Your task to perform on an android device: toggle javascript in the chrome app Image 0: 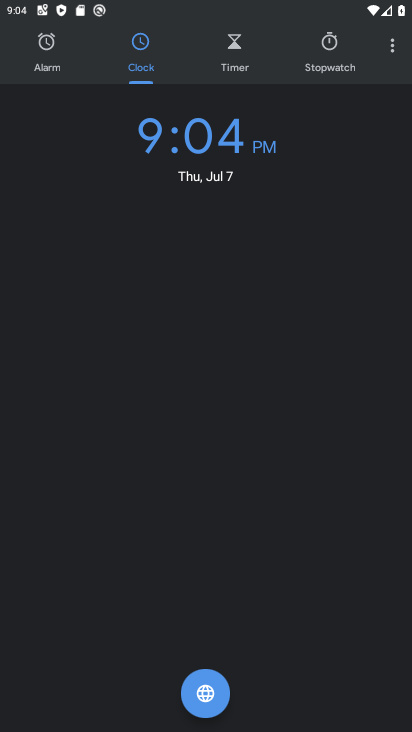
Step 0: drag from (279, 514) to (331, 168)
Your task to perform on an android device: toggle javascript in the chrome app Image 1: 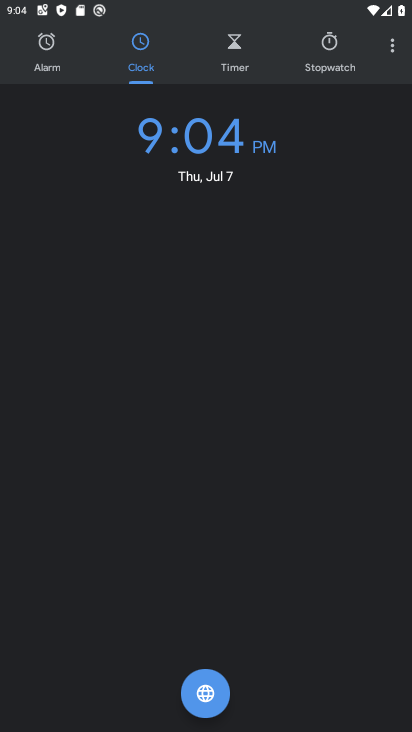
Step 1: press home button
Your task to perform on an android device: toggle javascript in the chrome app Image 2: 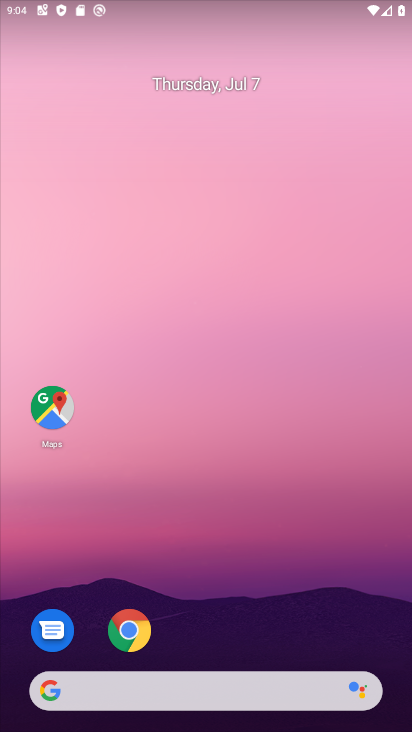
Step 2: drag from (180, 659) to (279, 131)
Your task to perform on an android device: toggle javascript in the chrome app Image 3: 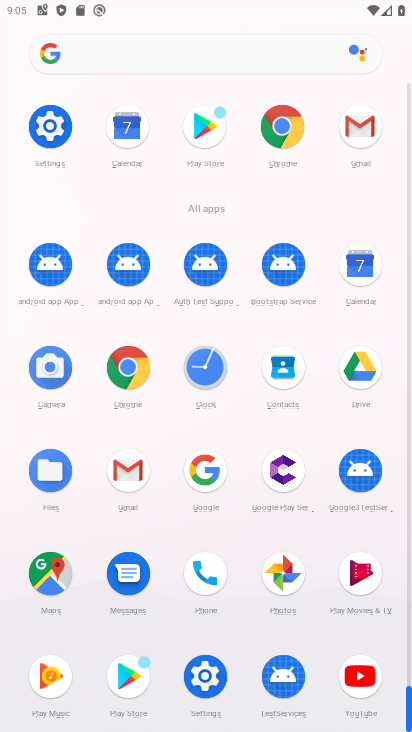
Step 3: click (133, 364)
Your task to perform on an android device: toggle javascript in the chrome app Image 4: 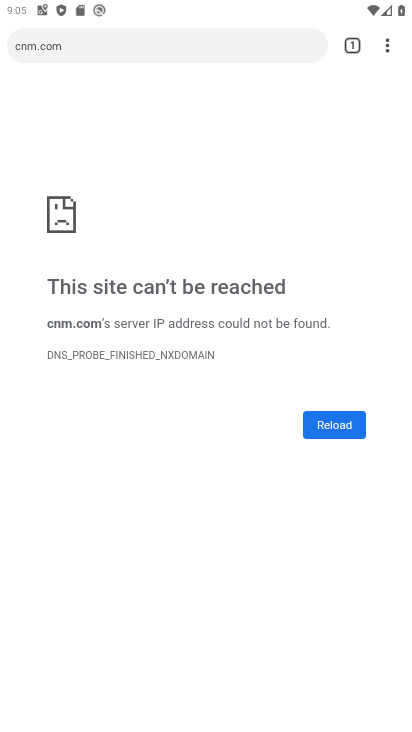
Step 4: click (255, 183)
Your task to perform on an android device: toggle javascript in the chrome app Image 5: 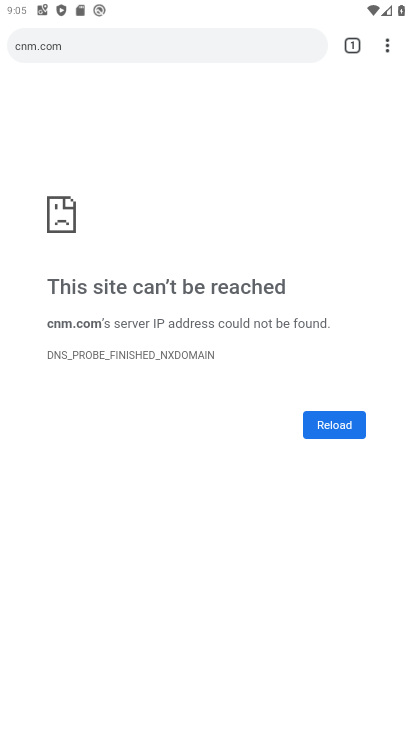
Step 5: click (387, 43)
Your task to perform on an android device: toggle javascript in the chrome app Image 6: 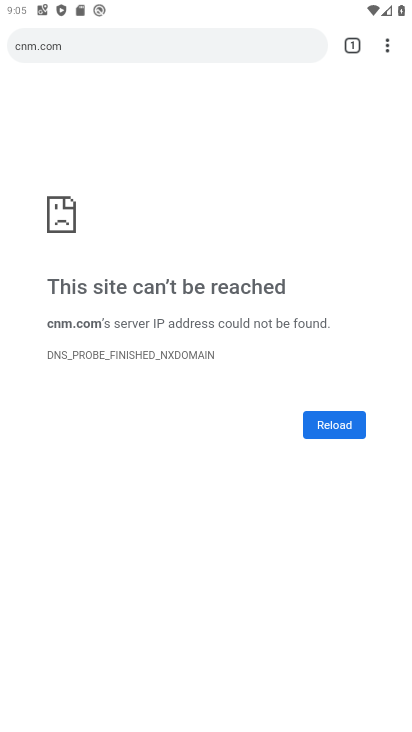
Step 6: drag from (389, 45) to (275, 509)
Your task to perform on an android device: toggle javascript in the chrome app Image 7: 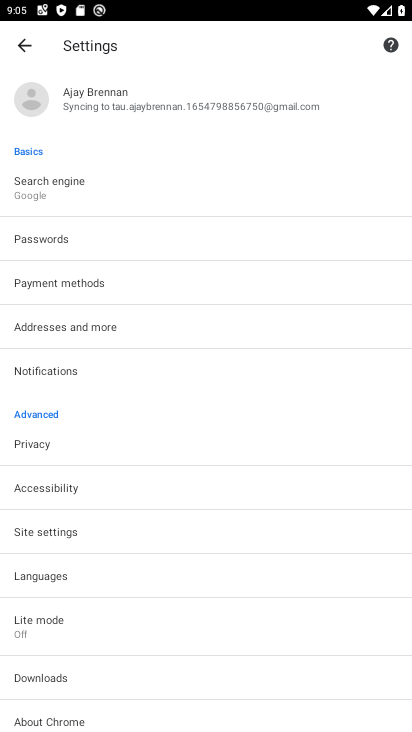
Step 7: click (89, 536)
Your task to perform on an android device: toggle javascript in the chrome app Image 8: 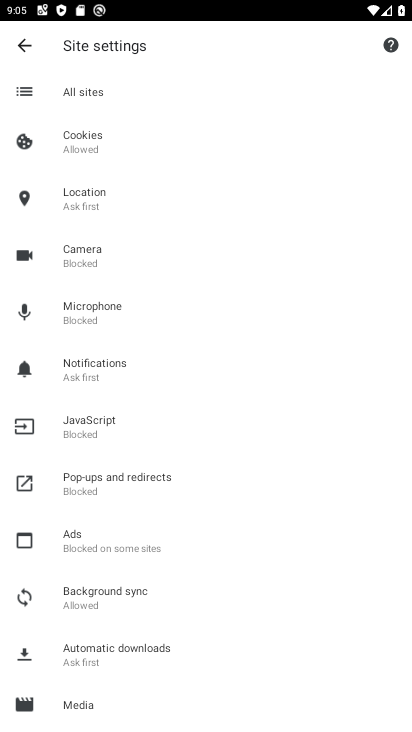
Step 8: click (118, 427)
Your task to perform on an android device: toggle javascript in the chrome app Image 9: 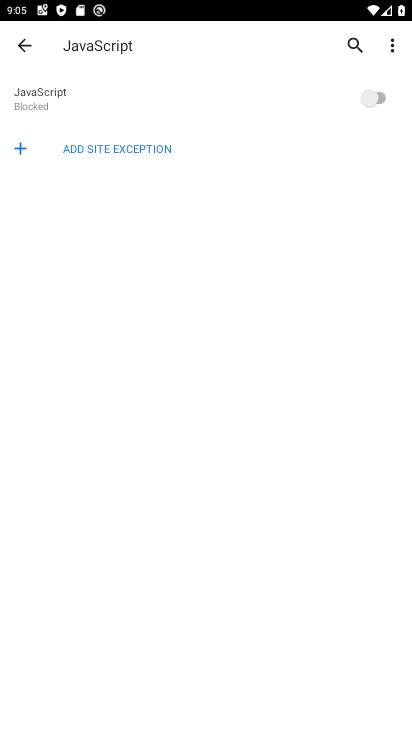
Step 9: click (352, 100)
Your task to perform on an android device: toggle javascript in the chrome app Image 10: 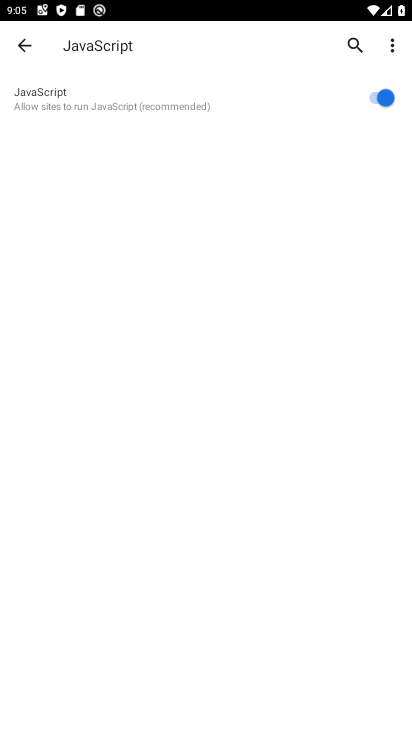
Step 10: task complete